Your task to perform on an android device: turn off data saver in the chrome app Image 0: 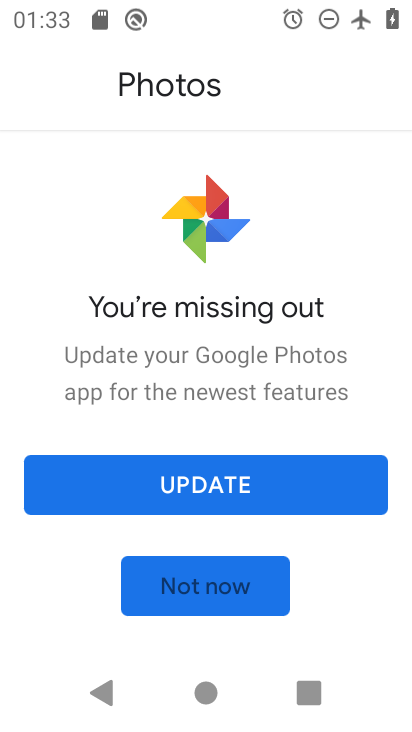
Step 0: press home button
Your task to perform on an android device: turn off data saver in the chrome app Image 1: 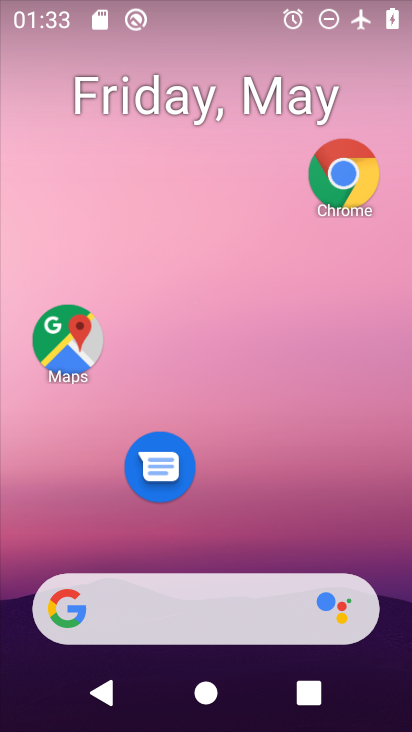
Step 1: drag from (261, 563) to (302, 287)
Your task to perform on an android device: turn off data saver in the chrome app Image 2: 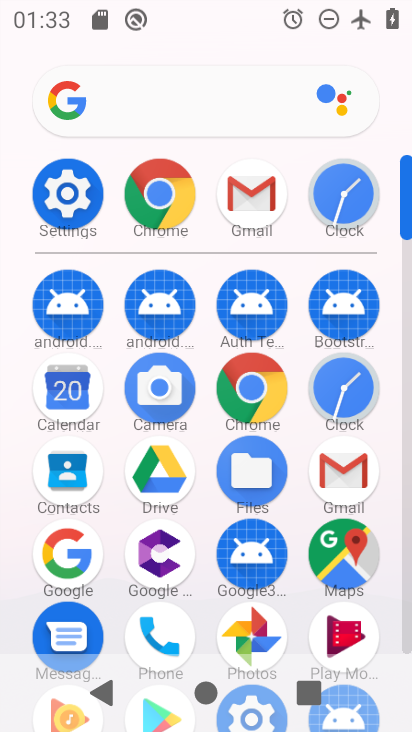
Step 2: click (272, 368)
Your task to perform on an android device: turn off data saver in the chrome app Image 3: 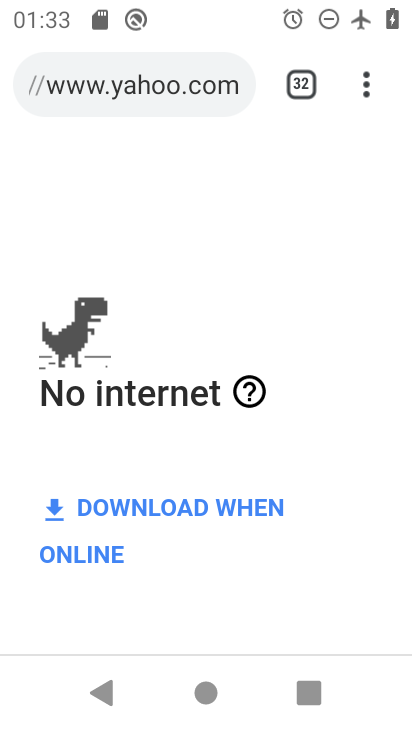
Step 3: click (380, 67)
Your task to perform on an android device: turn off data saver in the chrome app Image 4: 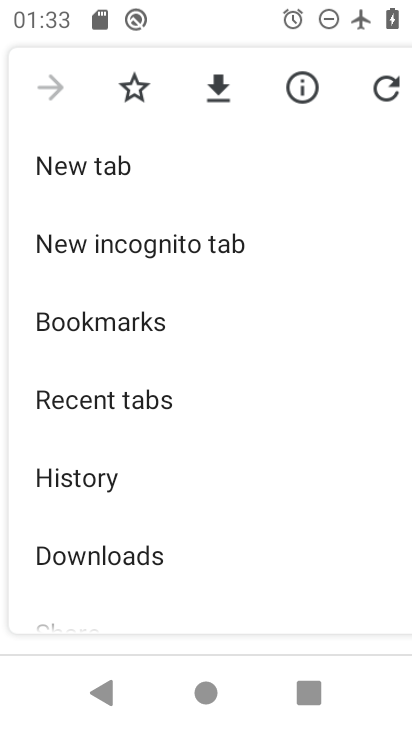
Step 4: drag from (182, 568) to (260, 214)
Your task to perform on an android device: turn off data saver in the chrome app Image 5: 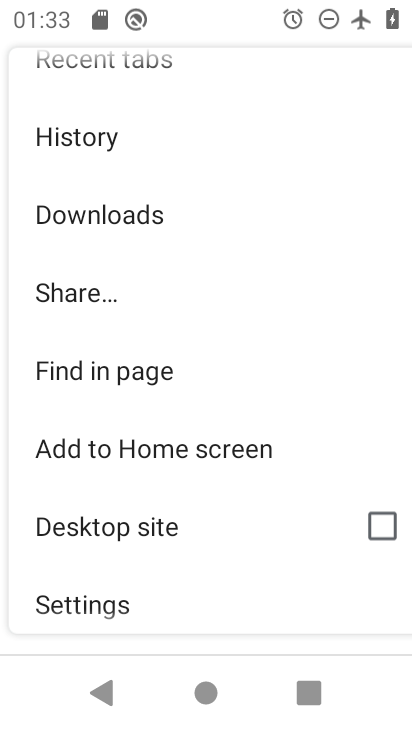
Step 5: click (112, 598)
Your task to perform on an android device: turn off data saver in the chrome app Image 6: 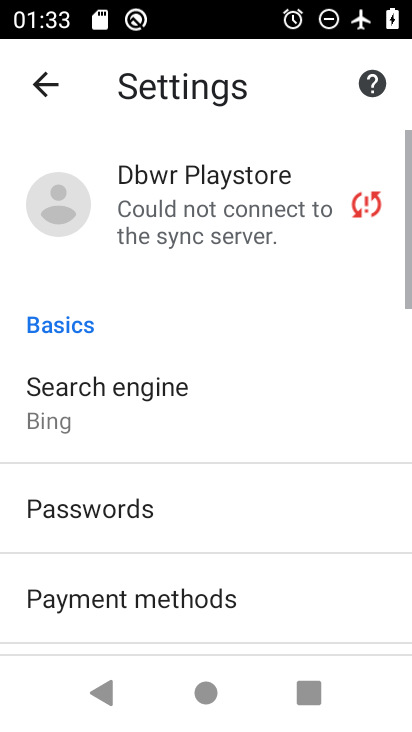
Step 6: drag from (167, 557) to (279, 173)
Your task to perform on an android device: turn off data saver in the chrome app Image 7: 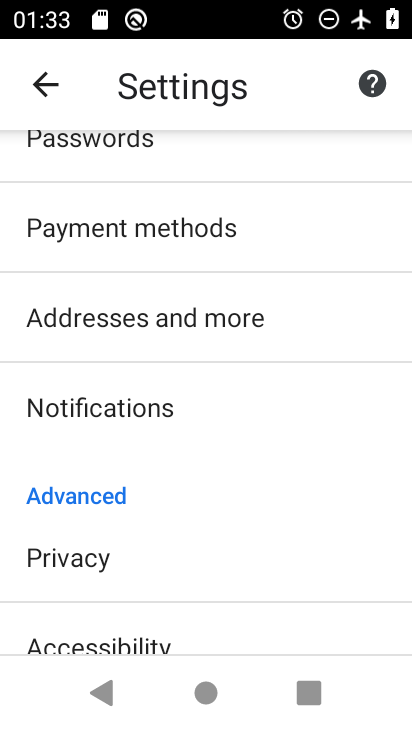
Step 7: drag from (190, 616) to (261, 196)
Your task to perform on an android device: turn off data saver in the chrome app Image 8: 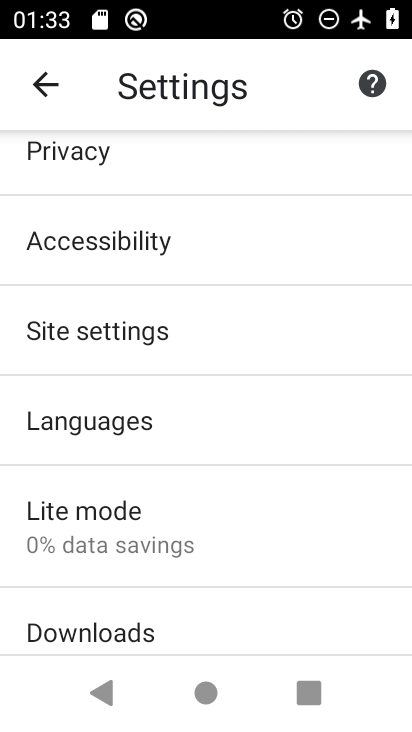
Step 8: click (144, 514)
Your task to perform on an android device: turn off data saver in the chrome app Image 9: 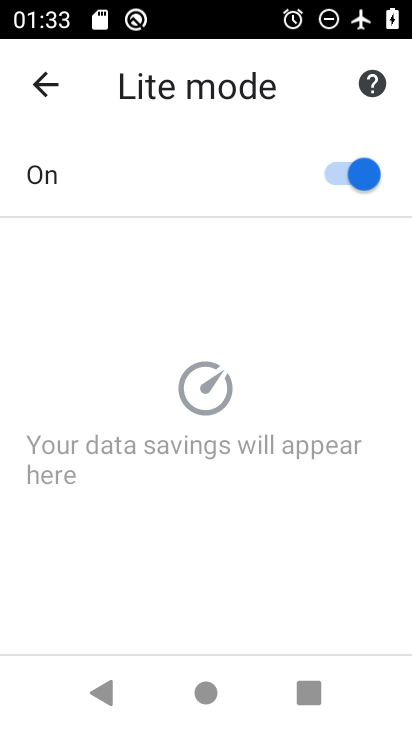
Step 9: task complete